Your task to perform on an android device: find which apps use the phone's location Image 0: 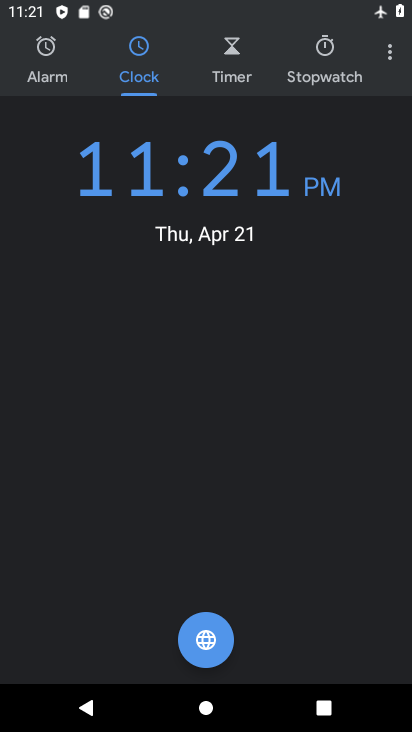
Step 0: press home button
Your task to perform on an android device: find which apps use the phone's location Image 1: 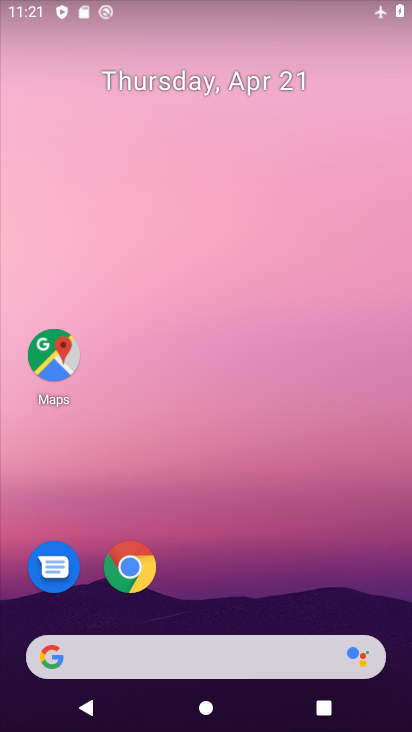
Step 1: drag from (355, 586) to (353, 155)
Your task to perform on an android device: find which apps use the phone's location Image 2: 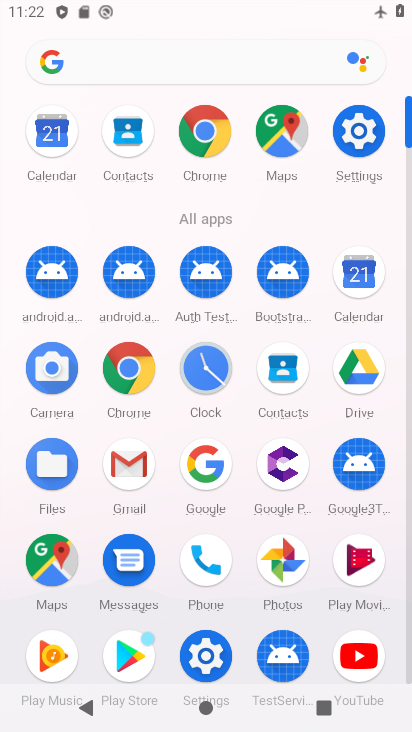
Step 2: click (354, 137)
Your task to perform on an android device: find which apps use the phone's location Image 3: 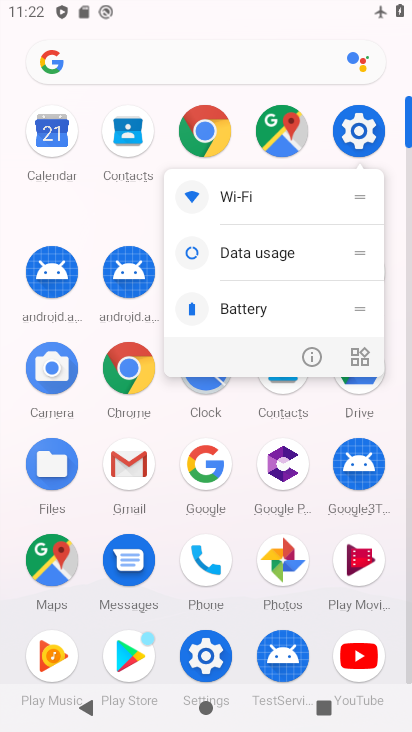
Step 3: click (361, 134)
Your task to perform on an android device: find which apps use the phone's location Image 4: 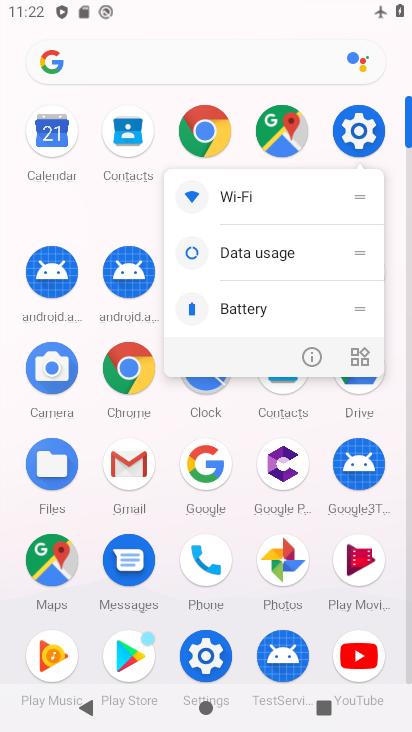
Step 4: click (349, 150)
Your task to perform on an android device: find which apps use the phone's location Image 5: 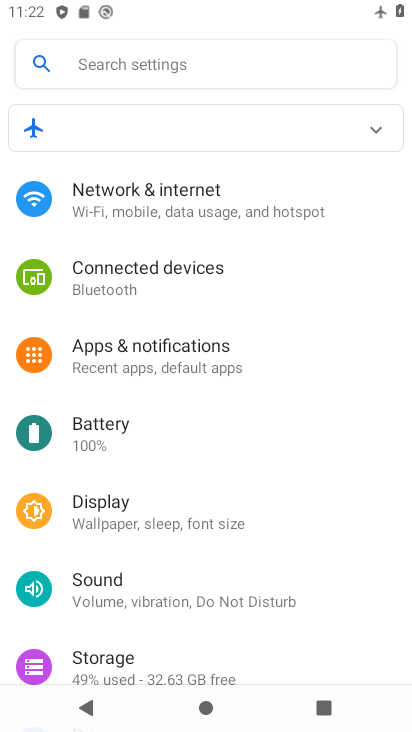
Step 5: drag from (283, 637) to (356, 349)
Your task to perform on an android device: find which apps use the phone's location Image 6: 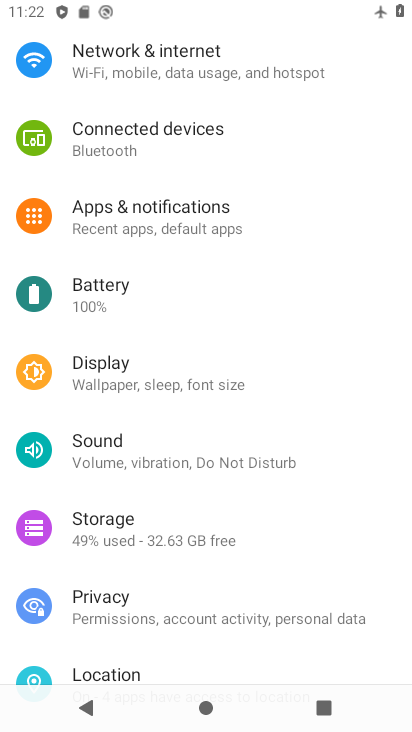
Step 6: drag from (319, 560) to (359, 366)
Your task to perform on an android device: find which apps use the phone's location Image 7: 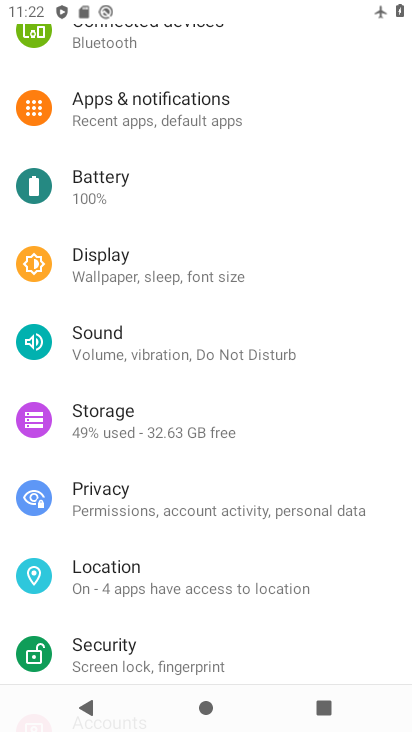
Step 7: click (186, 582)
Your task to perform on an android device: find which apps use the phone's location Image 8: 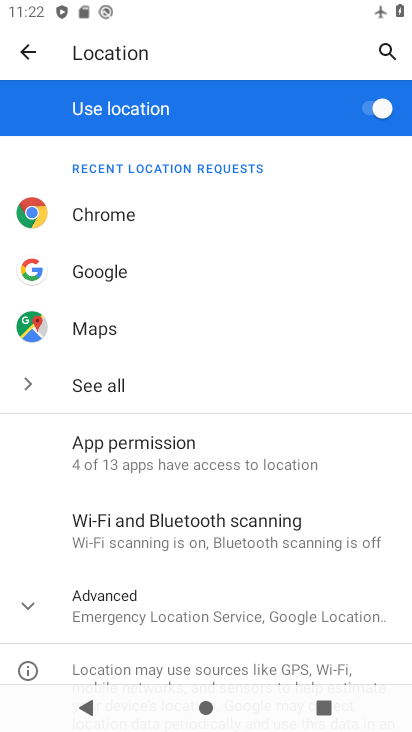
Step 8: task complete